Your task to perform on an android device: Open Google Maps Image 0: 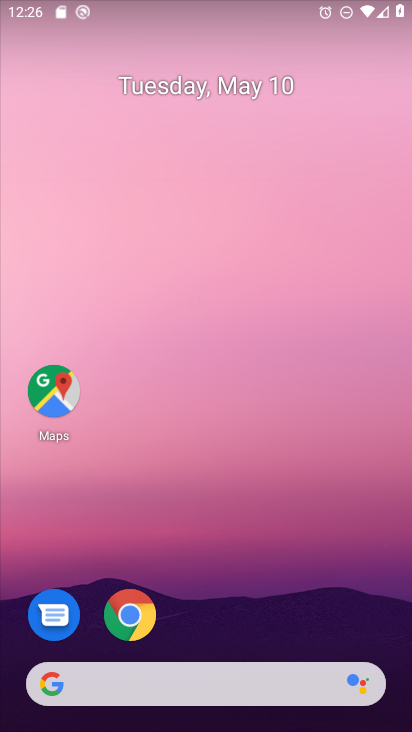
Step 0: drag from (292, 671) to (251, 407)
Your task to perform on an android device: Open Google Maps Image 1: 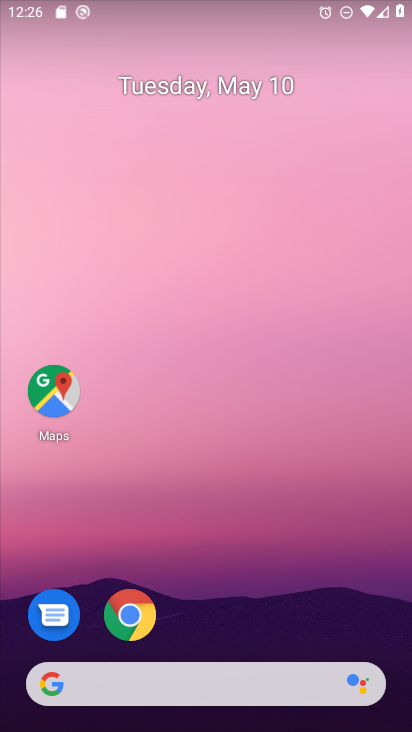
Step 1: drag from (191, 703) to (208, 306)
Your task to perform on an android device: Open Google Maps Image 2: 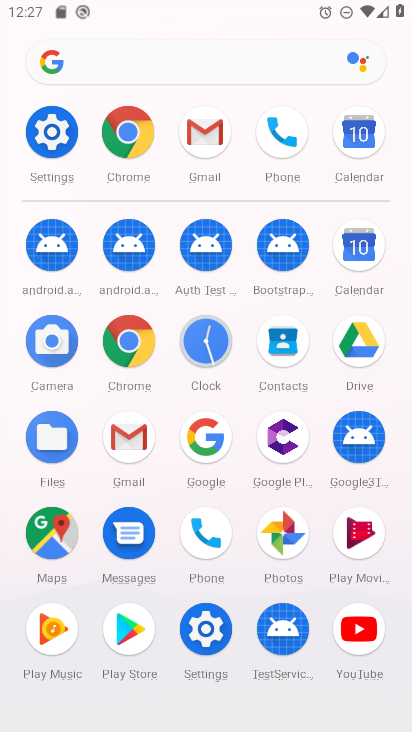
Step 2: click (66, 534)
Your task to perform on an android device: Open Google Maps Image 3: 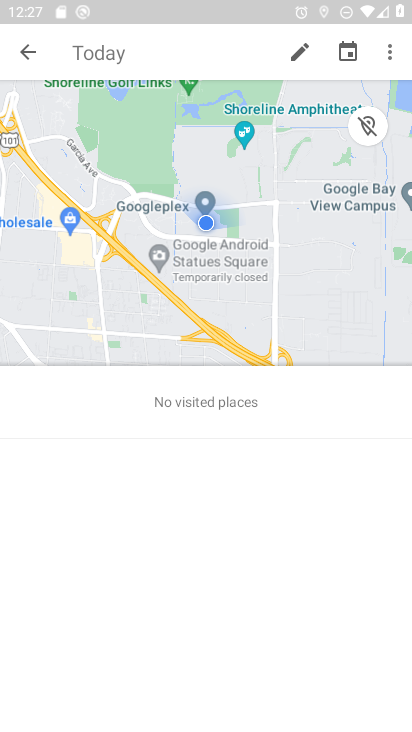
Step 3: click (23, 52)
Your task to perform on an android device: Open Google Maps Image 4: 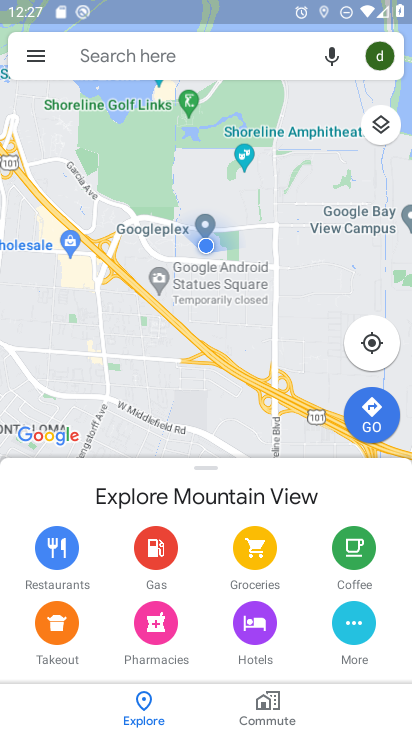
Step 4: task complete